Your task to perform on an android device: clear history in the chrome app Image 0: 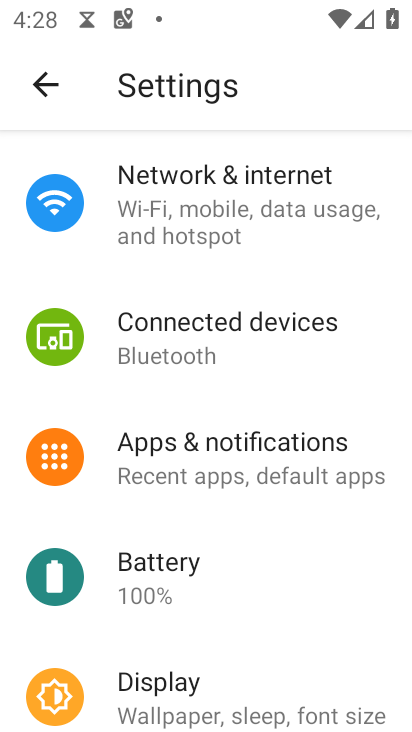
Step 0: press back button
Your task to perform on an android device: clear history in the chrome app Image 1: 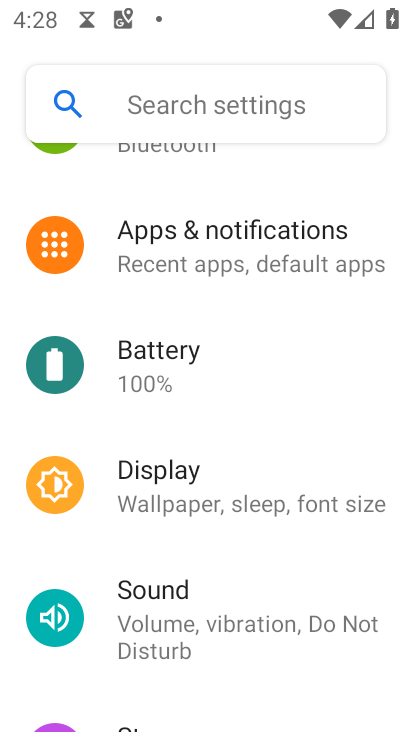
Step 1: press back button
Your task to perform on an android device: clear history in the chrome app Image 2: 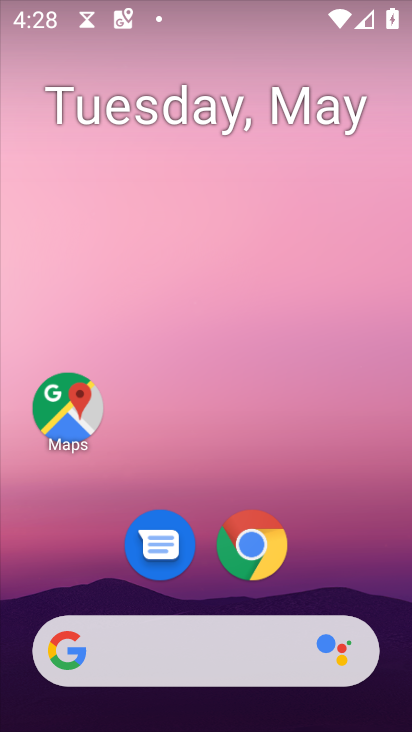
Step 2: click (252, 547)
Your task to perform on an android device: clear history in the chrome app Image 3: 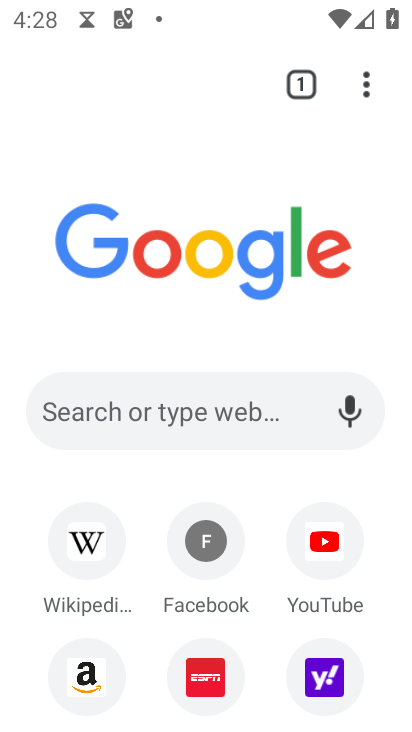
Step 3: click (366, 85)
Your task to perform on an android device: clear history in the chrome app Image 4: 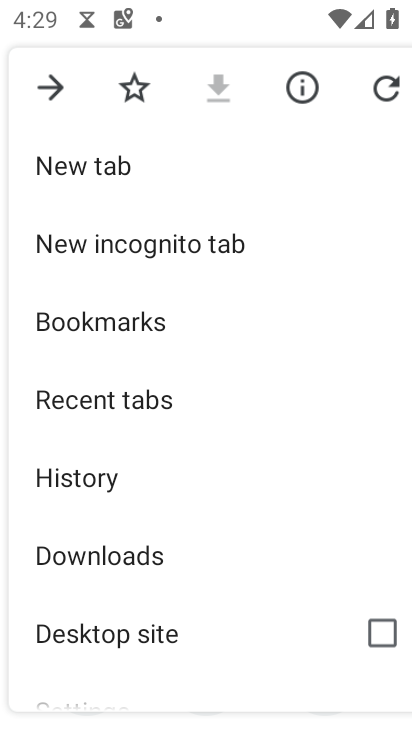
Step 4: click (61, 473)
Your task to perform on an android device: clear history in the chrome app Image 5: 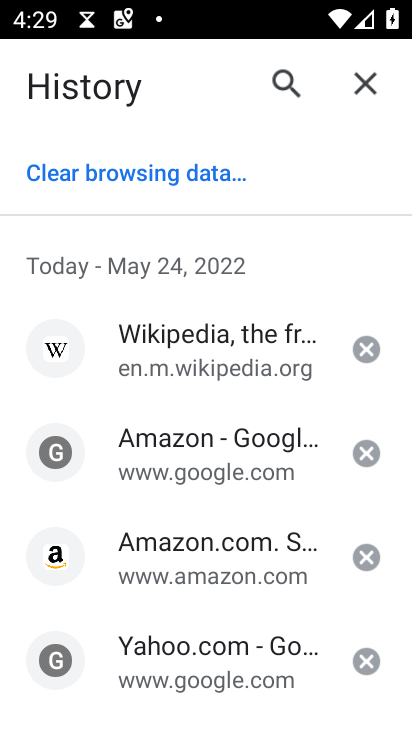
Step 5: click (88, 170)
Your task to perform on an android device: clear history in the chrome app Image 6: 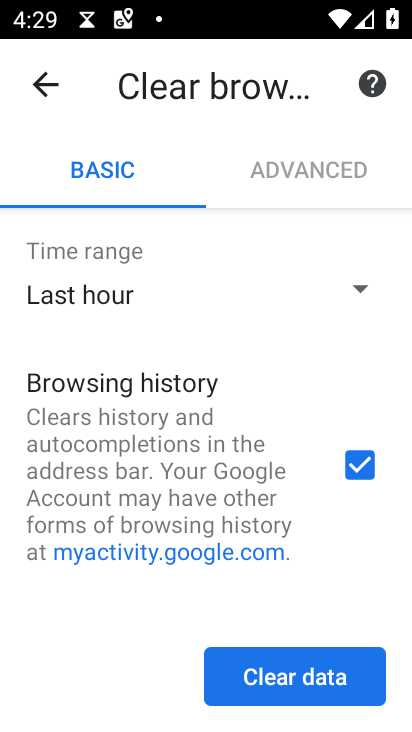
Step 6: click (323, 681)
Your task to perform on an android device: clear history in the chrome app Image 7: 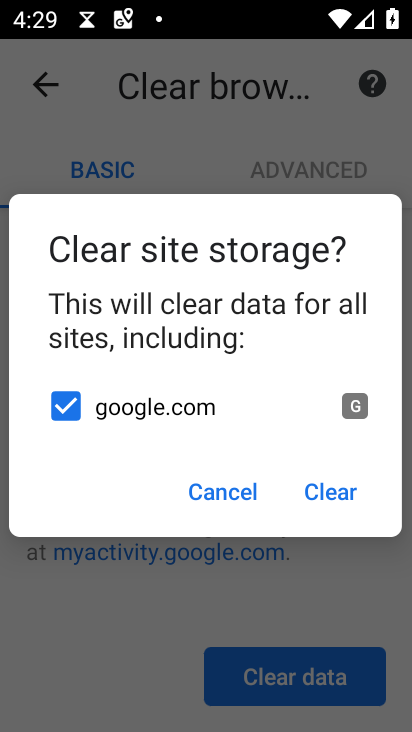
Step 7: click (344, 490)
Your task to perform on an android device: clear history in the chrome app Image 8: 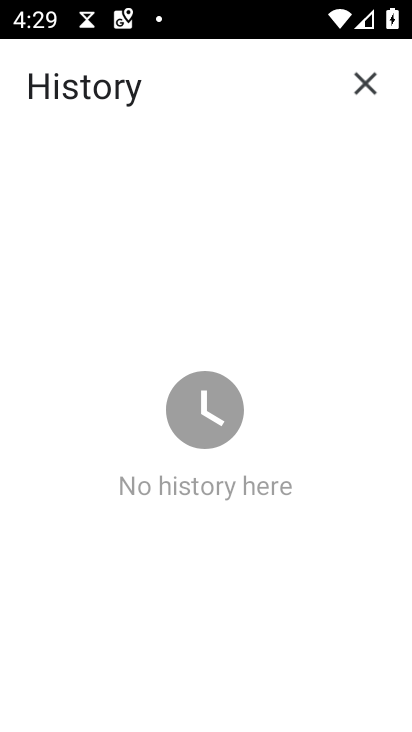
Step 8: task complete